Your task to perform on an android device: empty trash in google photos Image 0: 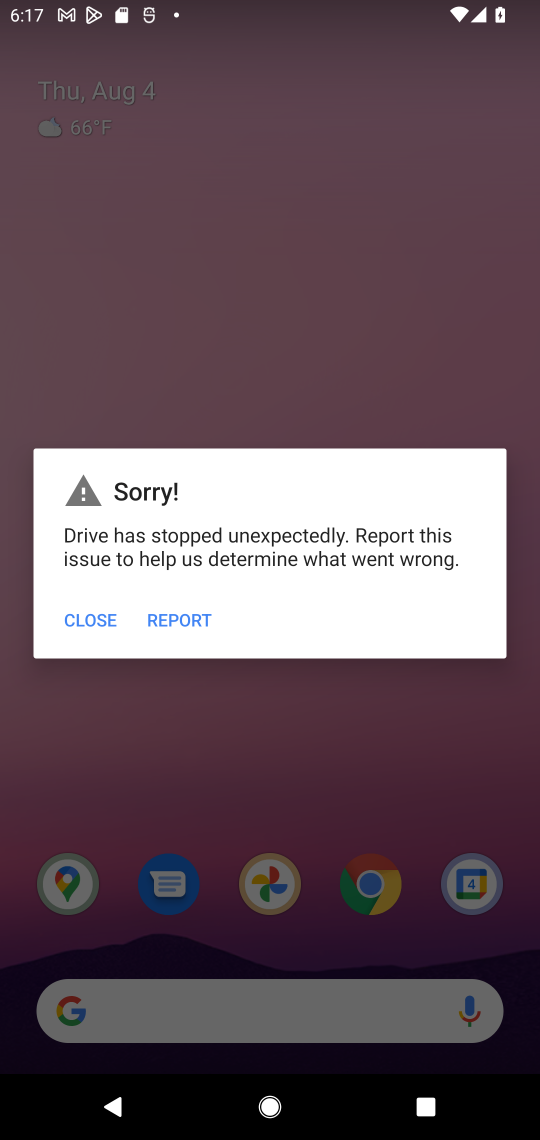
Step 0: press home button
Your task to perform on an android device: empty trash in google photos Image 1: 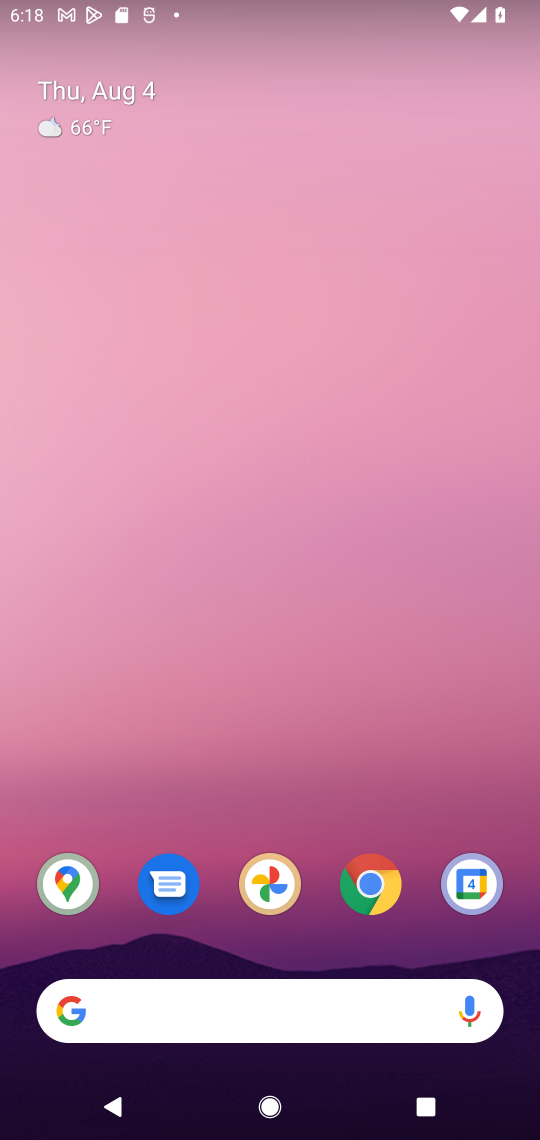
Step 1: click (272, 890)
Your task to perform on an android device: empty trash in google photos Image 2: 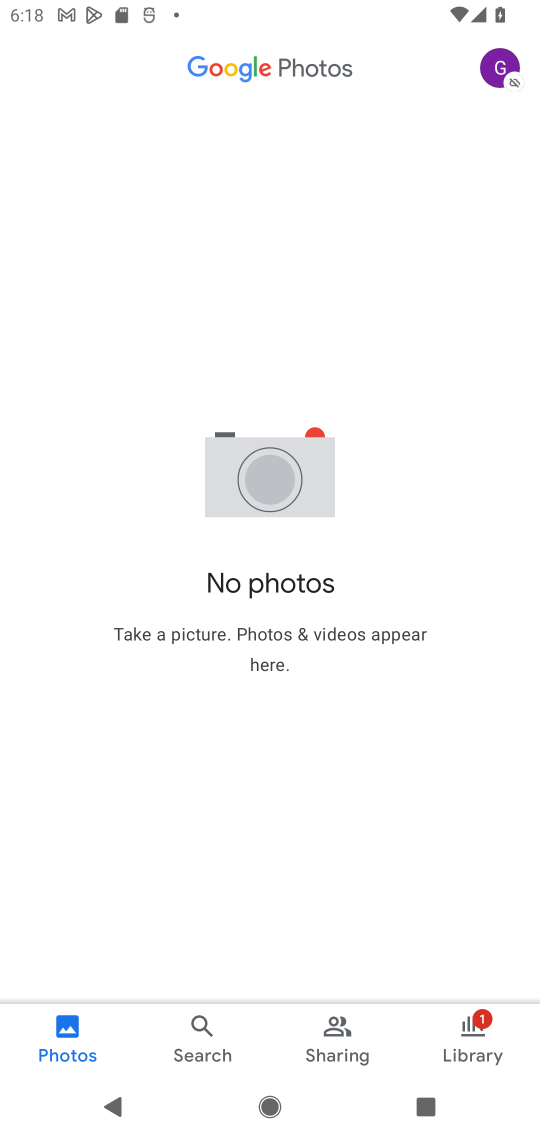
Step 2: task complete